Your task to perform on an android device: turn off location history Image 0: 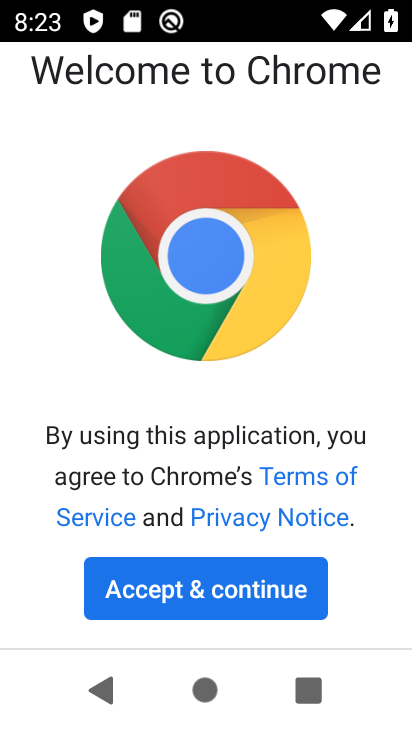
Step 0: press home button
Your task to perform on an android device: turn off location history Image 1: 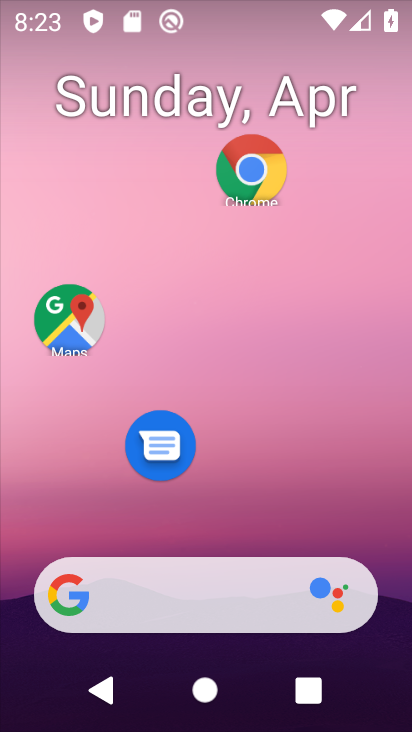
Step 1: drag from (239, 485) to (268, 5)
Your task to perform on an android device: turn off location history Image 2: 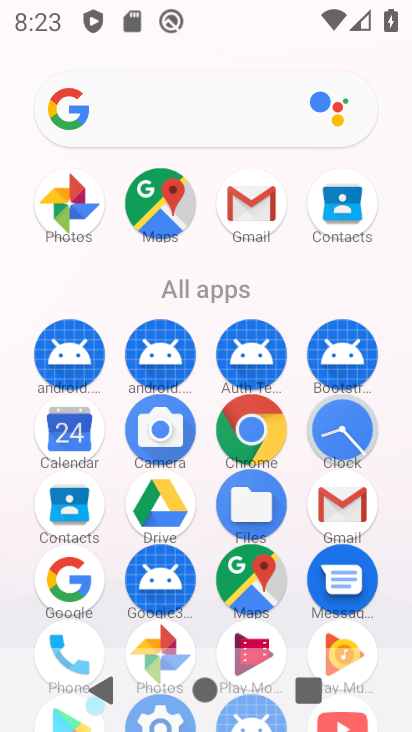
Step 2: drag from (205, 629) to (230, 244)
Your task to perform on an android device: turn off location history Image 3: 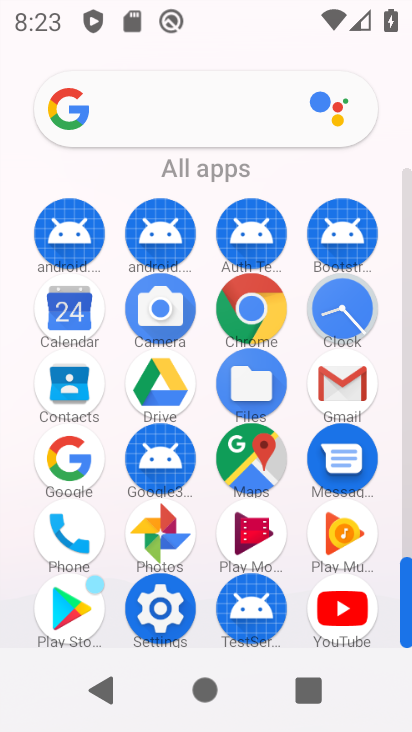
Step 3: click (162, 612)
Your task to perform on an android device: turn off location history Image 4: 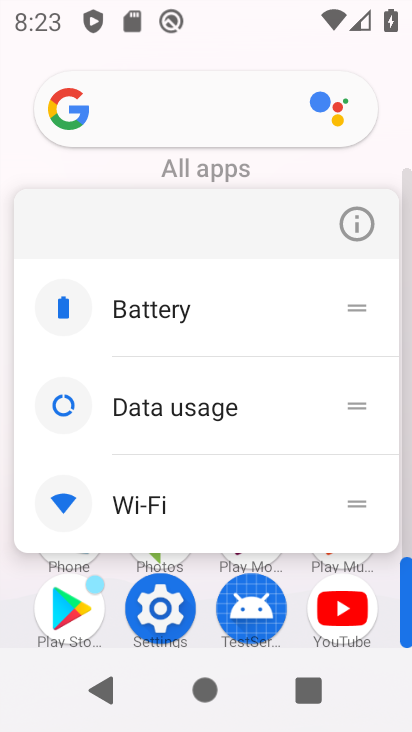
Step 4: click (166, 616)
Your task to perform on an android device: turn off location history Image 5: 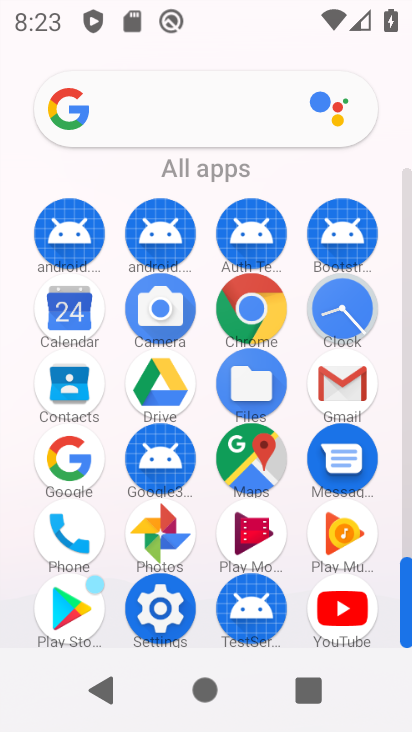
Step 5: click (166, 616)
Your task to perform on an android device: turn off location history Image 6: 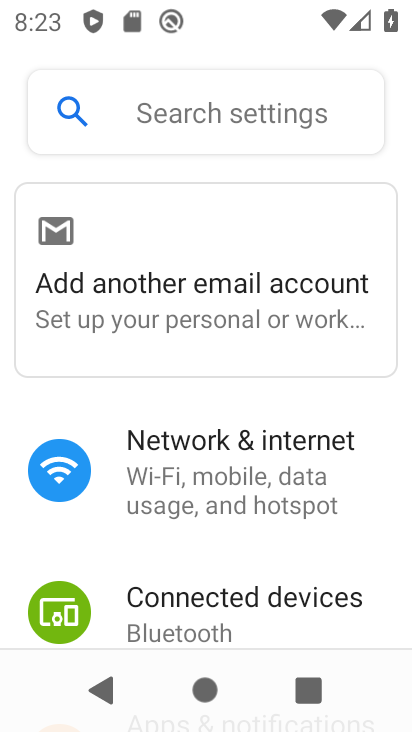
Step 6: drag from (195, 335) to (248, 0)
Your task to perform on an android device: turn off location history Image 7: 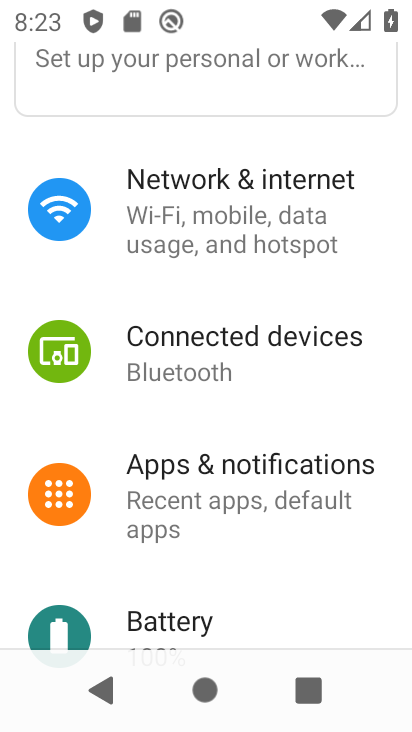
Step 7: drag from (280, 582) to (316, 177)
Your task to perform on an android device: turn off location history Image 8: 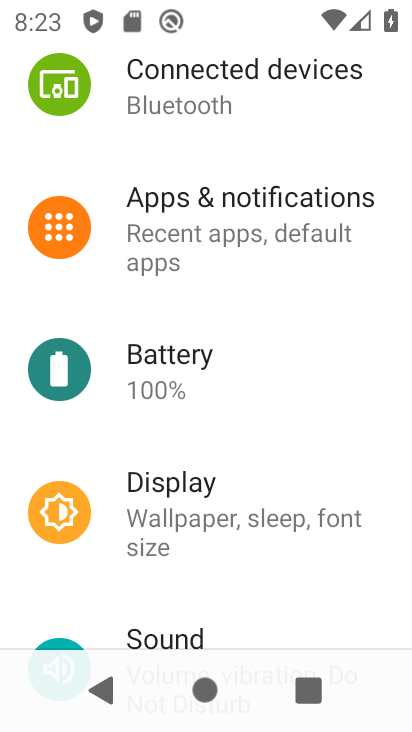
Step 8: drag from (225, 561) to (288, 96)
Your task to perform on an android device: turn off location history Image 9: 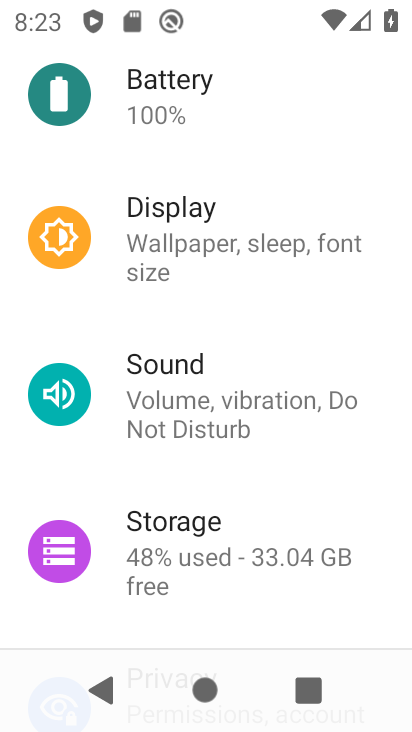
Step 9: drag from (199, 607) to (266, 68)
Your task to perform on an android device: turn off location history Image 10: 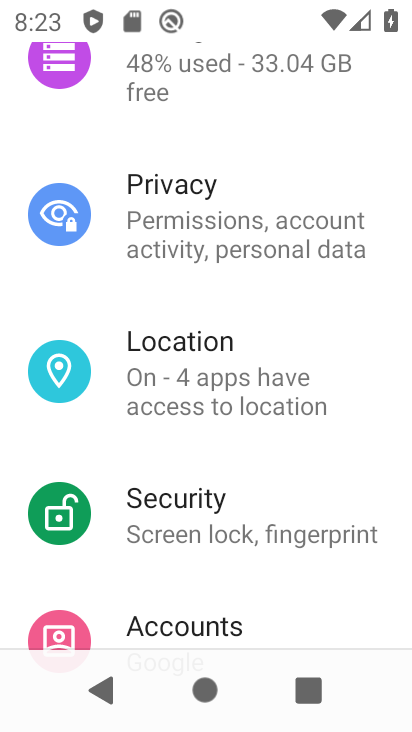
Step 10: click (218, 370)
Your task to perform on an android device: turn off location history Image 11: 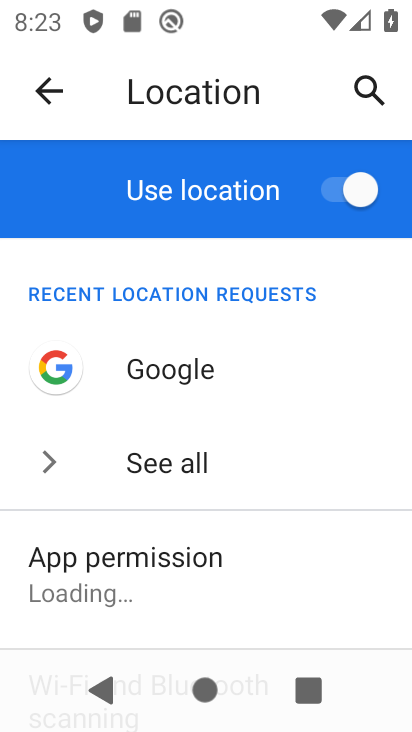
Step 11: drag from (360, 184) to (324, 538)
Your task to perform on an android device: turn off location history Image 12: 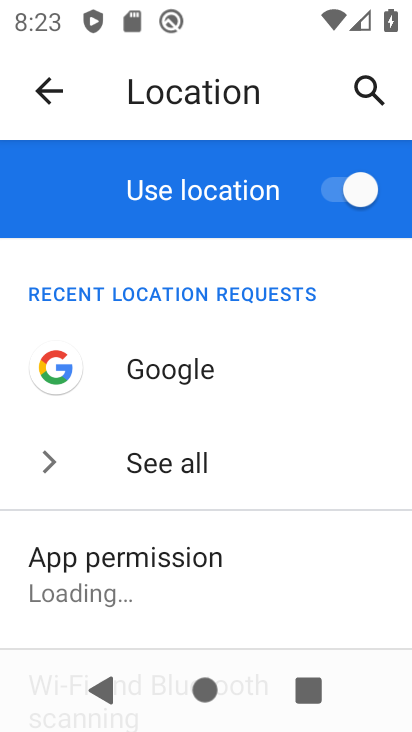
Step 12: drag from (289, 495) to (258, 83)
Your task to perform on an android device: turn off location history Image 13: 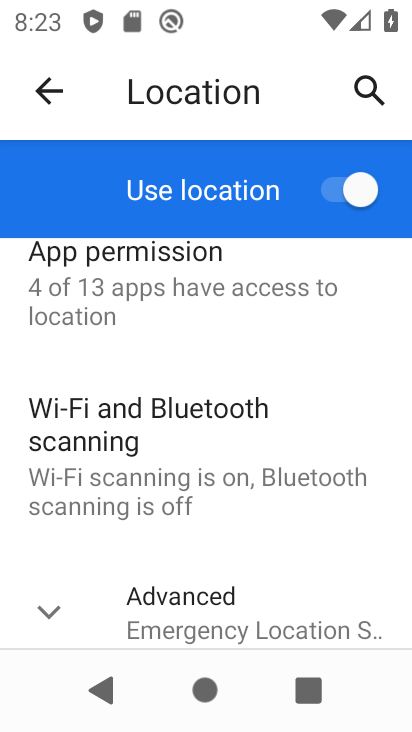
Step 13: click (161, 606)
Your task to perform on an android device: turn off location history Image 14: 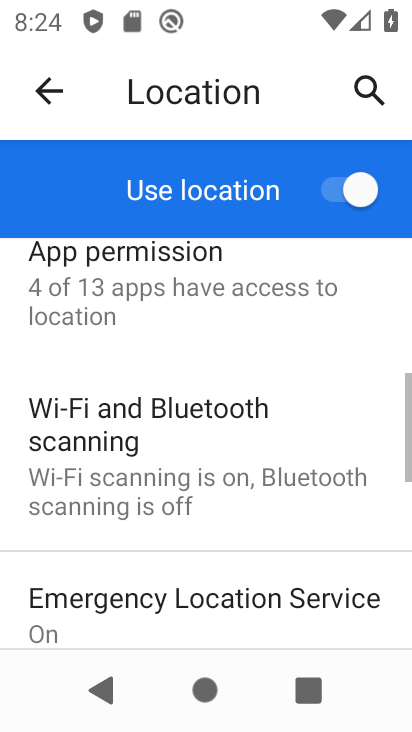
Step 14: drag from (285, 452) to (281, 117)
Your task to perform on an android device: turn off location history Image 15: 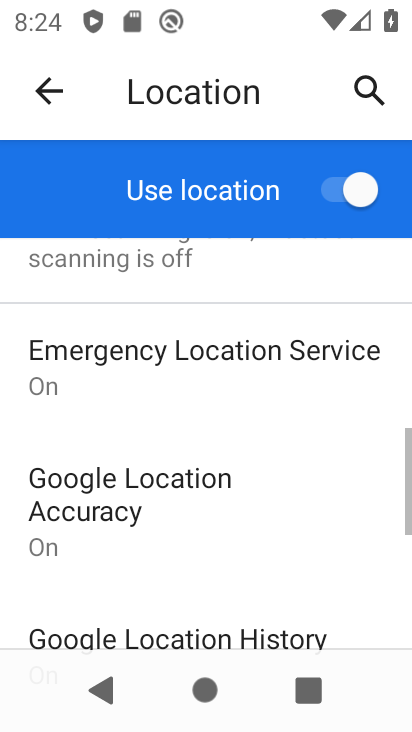
Step 15: click (87, 524)
Your task to perform on an android device: turn off location history Image 16: 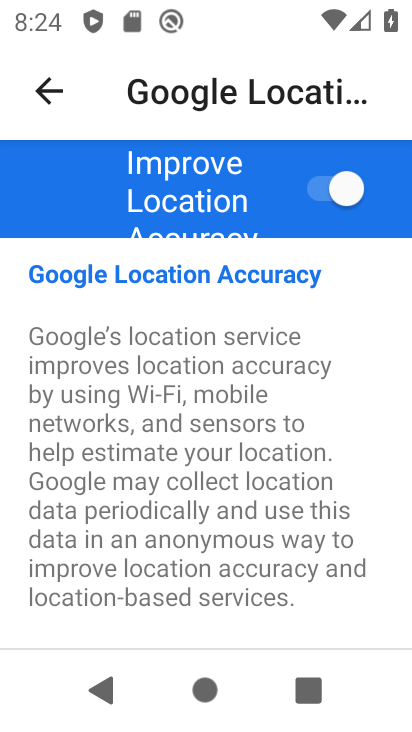
Step 16: click (346, 182)
Your task to perform on an android device: turn off location history Image 17: 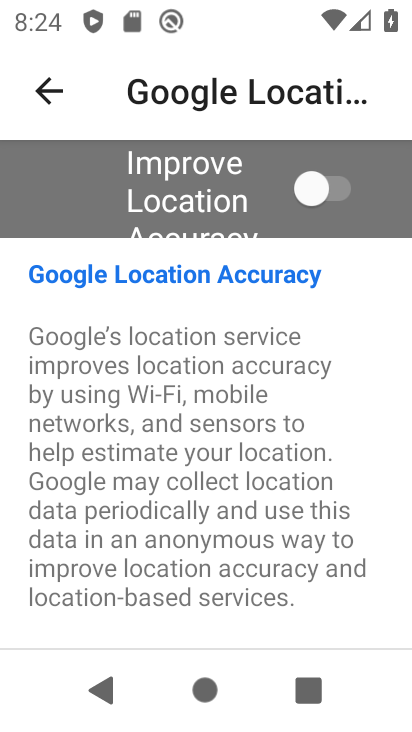
Step 17: task complete